Your task to perform on an android device: Search for the new Apple Watch on Best Buy Image 0: 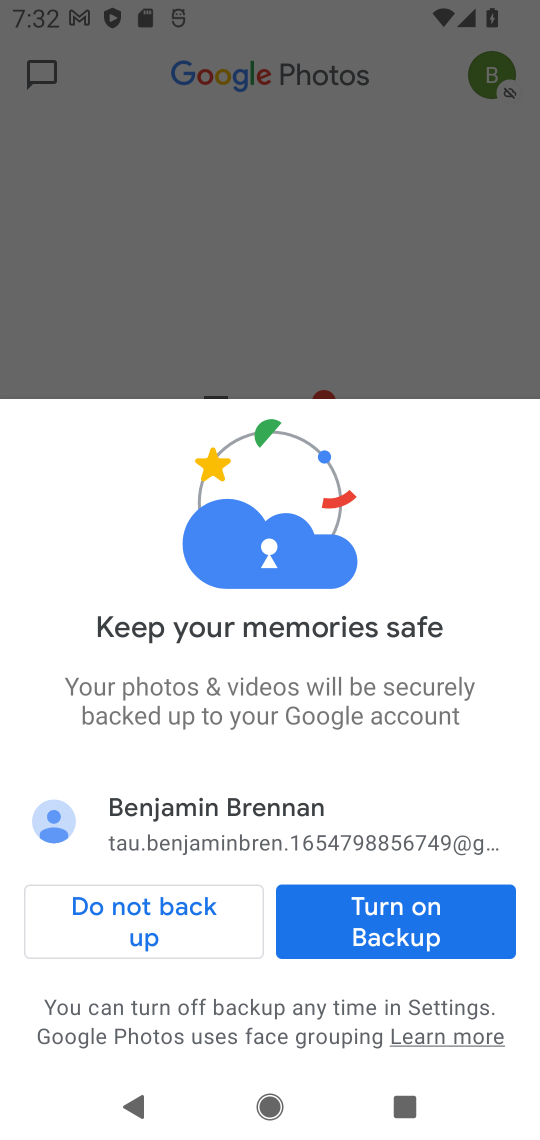
Step 0: press home button
Your task to perform on an android device: Search for the new Apple Watch on Best Buy Image 1: 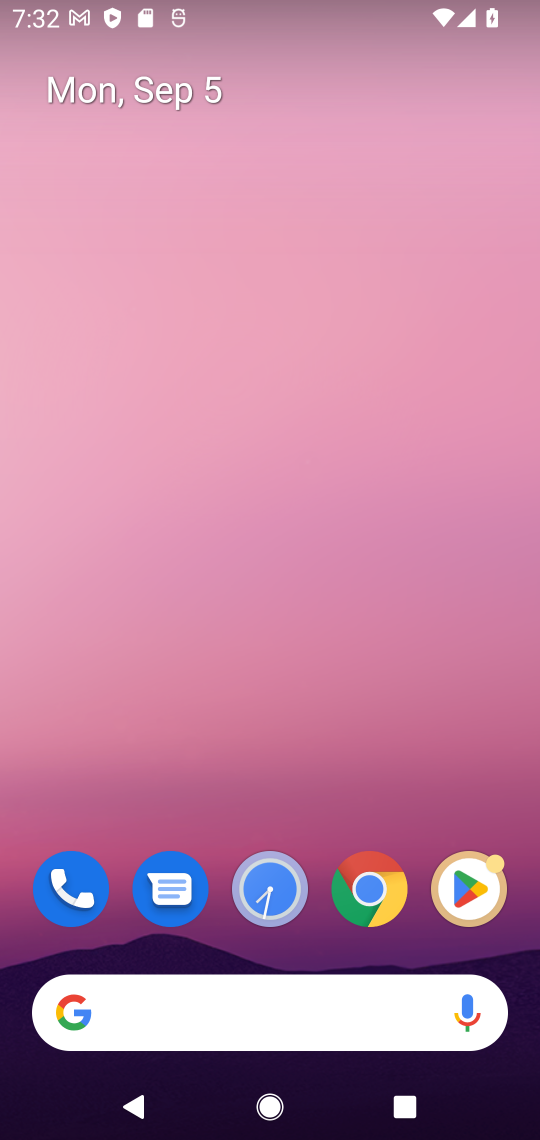
Step 1: click (208, 1005)
Your task to perform on an android device: Search for the new Apple Watch on Best Buy Image 2: 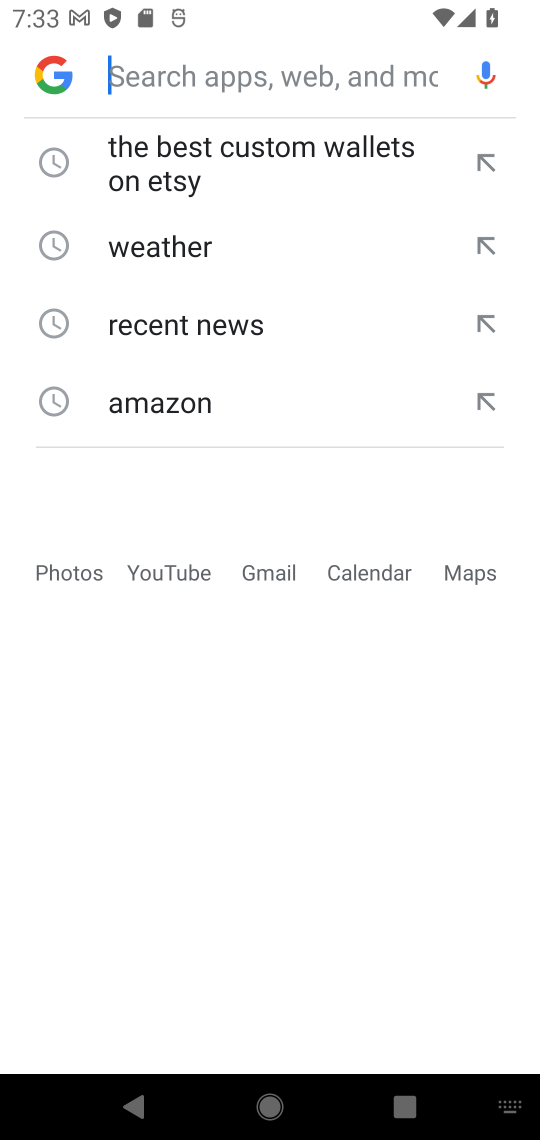
Step 2: type " the new Apple Watch on Best Buy"
Your task to perform on an android device: Search for the new Apple Watch on Best Buy Image 3: 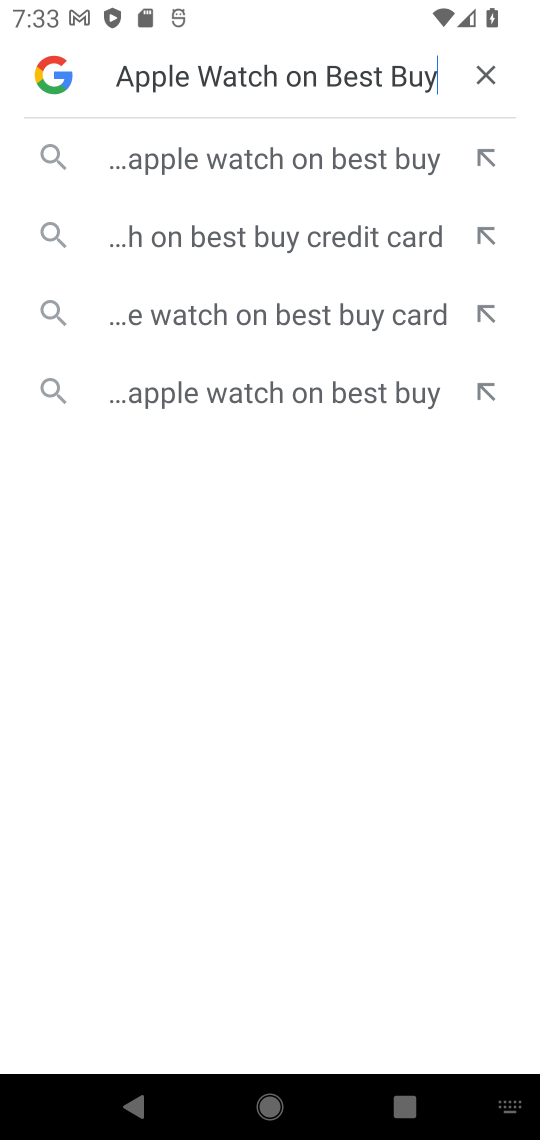
Step 3: click (278, 160)
Your task to perform on an android device: Search for the new Apple Watch on Best Buy Image 4: 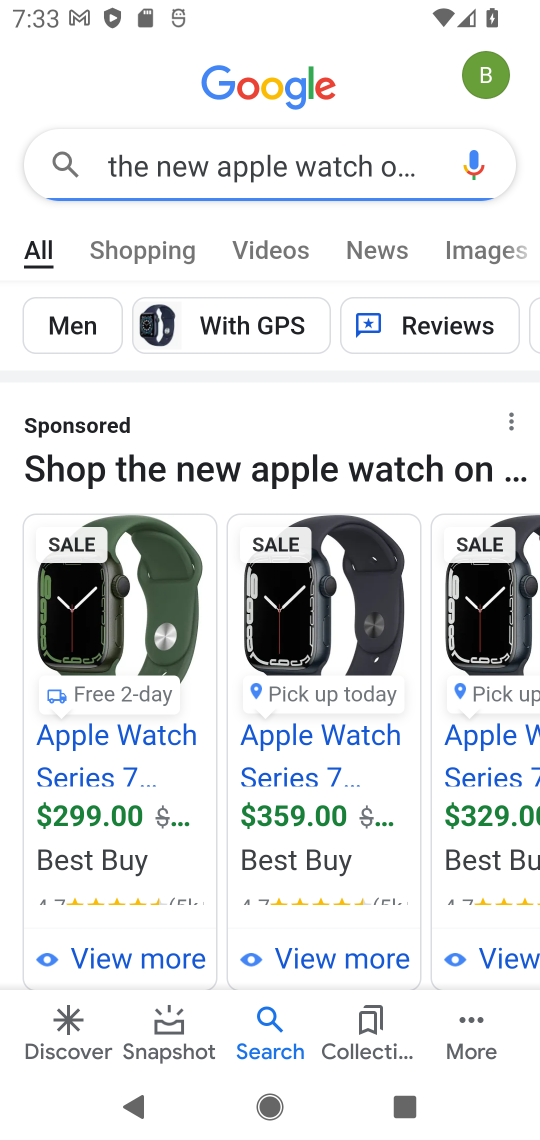
Step 4: task complete